Your task to perform on an android device: Open settings on Google Maps Image 0: 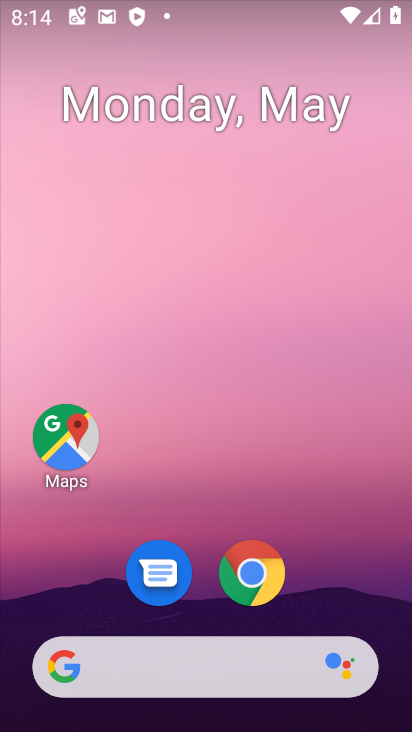
Step 0: drag from (186, 584) to (171, 57)
Your task to perform on an android device: Open settings on Google Maps Image 1: 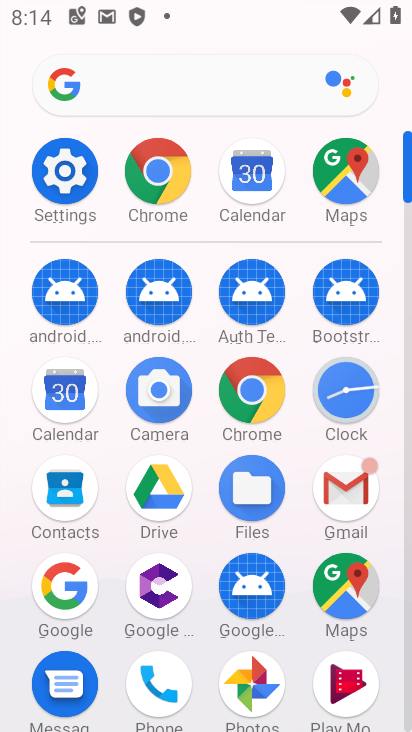
Step 1: click (352, 573)
Your task to perform on an android device: Open settings on Google Maps Image 2: 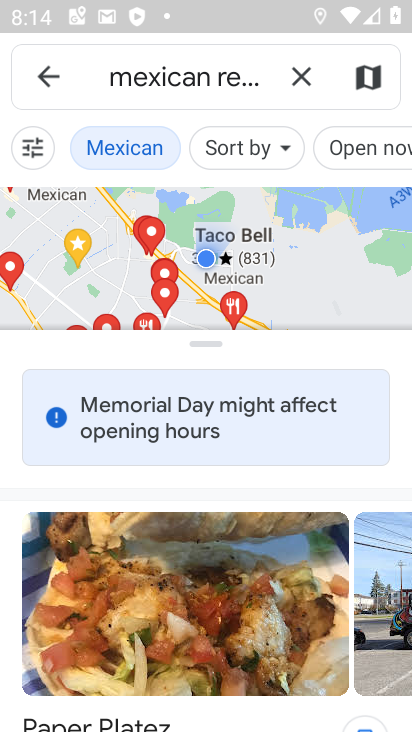
Step 2: click (48, 83)
Your task to perform on an android device: Open settings on Google Maps Image 3: 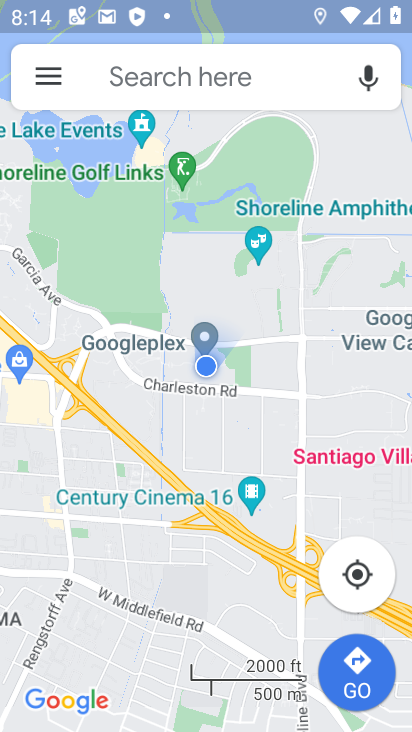
Step 3: click (48, 71)
Your task to perform on an android device: Open settings on Google Maps Image 4: 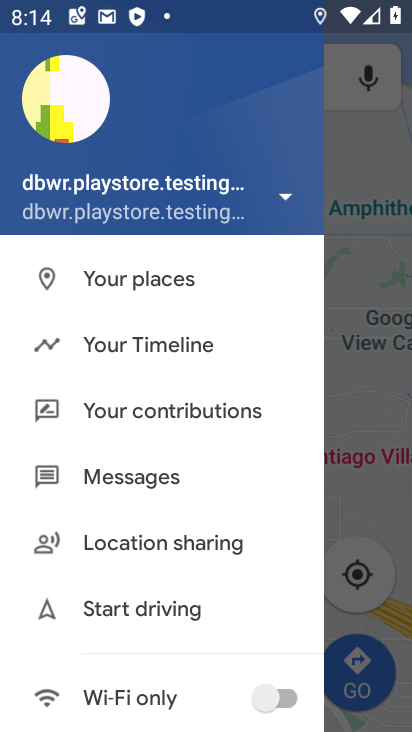
Step 4: drag from (79, 609) to (66, 8)
Your task to perform on an android device: Open settings on Google Maps Image 5: 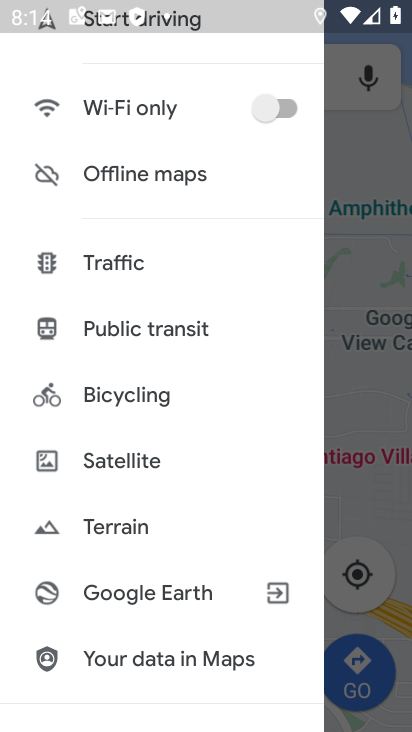
Step 5: drag from (176, 543) to (102, 81)
Your task to perform on an android device: Open settings on Google Maps Image 6: 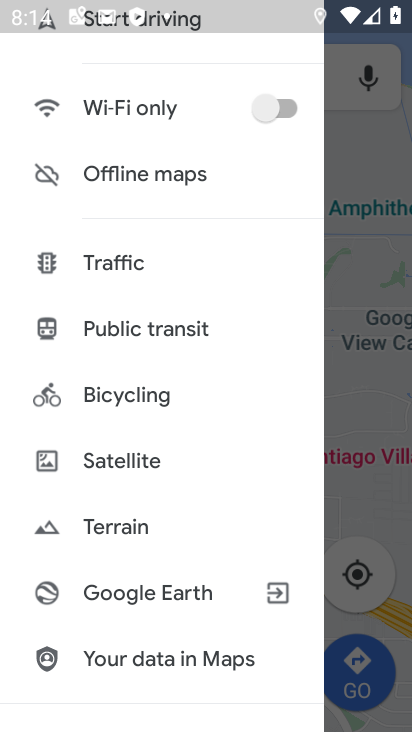
Step 6: drag from (86, 585) to (194, 28)
Your task to perform on an android device: Open settings on Google Maps Image 7: 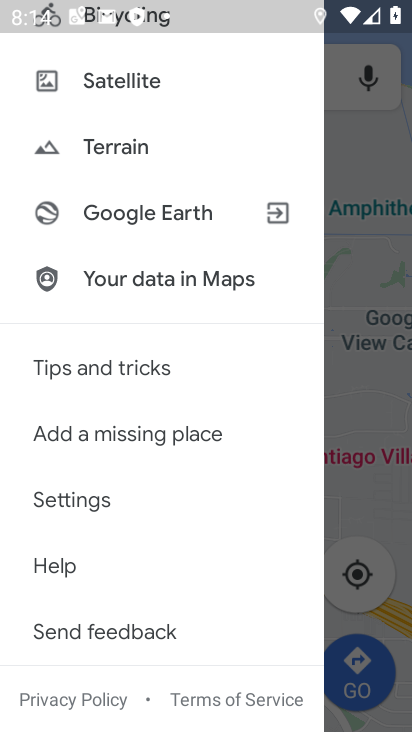
Step 7: click (85, 496)
Your task to perform on an android device: Open settings on Google Maps Image 8: 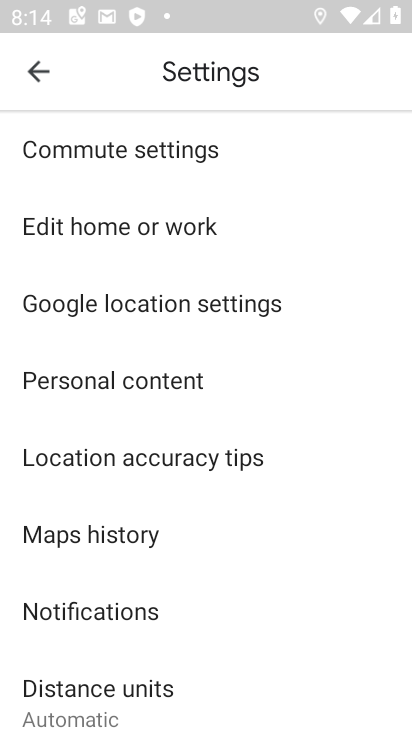
Step 8: task complete